Your task to perform on an android device: Go to privacy settings Image 0: 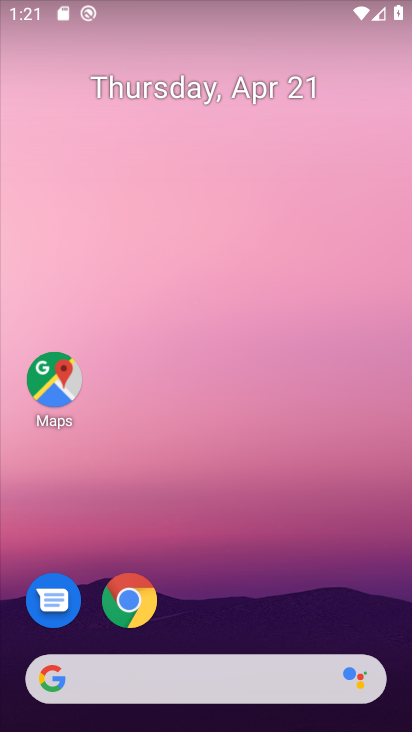
Step 0: drag from (254, 398) to (282, 179)
Your task to perform on an android device: Go to privacy settings Image 1: 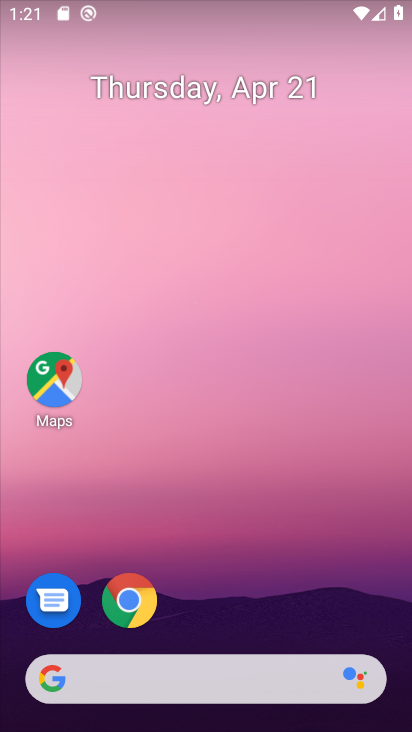
Step 1: drag from (283, 609) to (286, 143)
Your task to perform on an android device: Go to privacy settings Image 2: 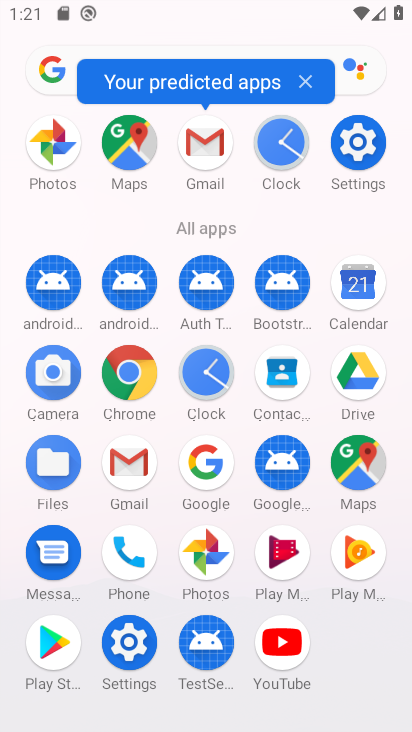
Step 2: click (364, 153)
Your task to perform on an android device: Go to privacy settings Image 3: 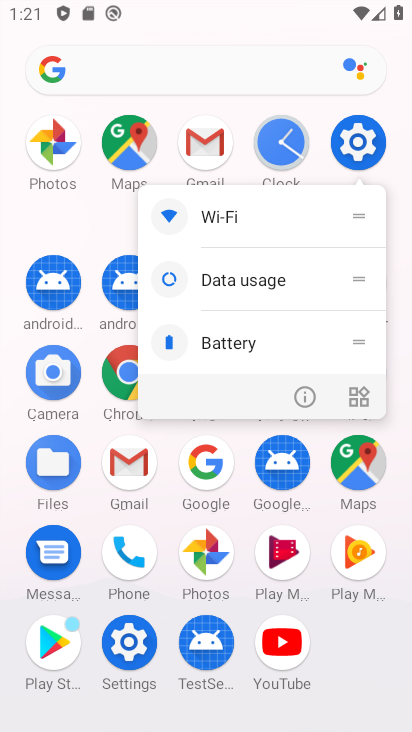
Step 3: click (342, 134)
Your task to perform on an android device: Go to privacy settings Image 4: 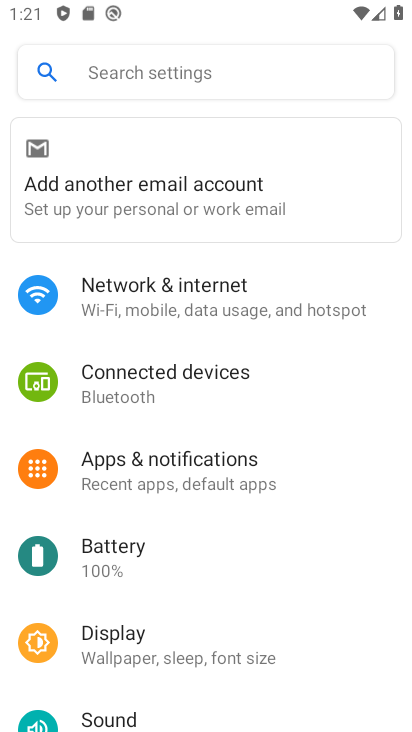
Step 4: drag from (216, 592) to (233, 200)
Your task to perform on an android device: Go to privacy settings Image 5: 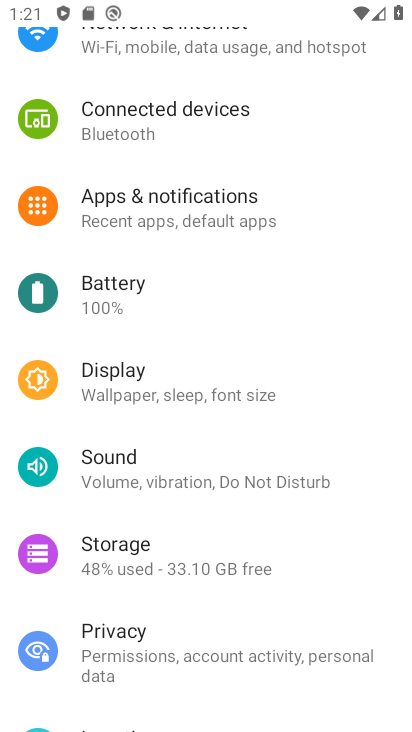
Step 5: click (146, 651)
Your task to perform on an android device: Go to privacy settings Image 6: 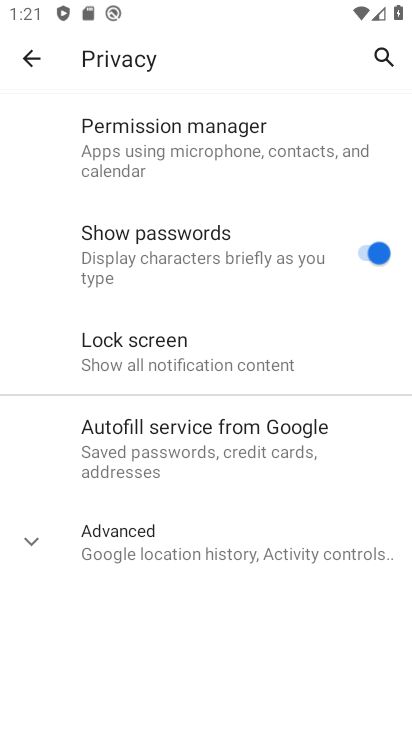
Step 6: task complete